Your task to perform on an android device: Search for vegetarian restaurants on Maps Image 0: 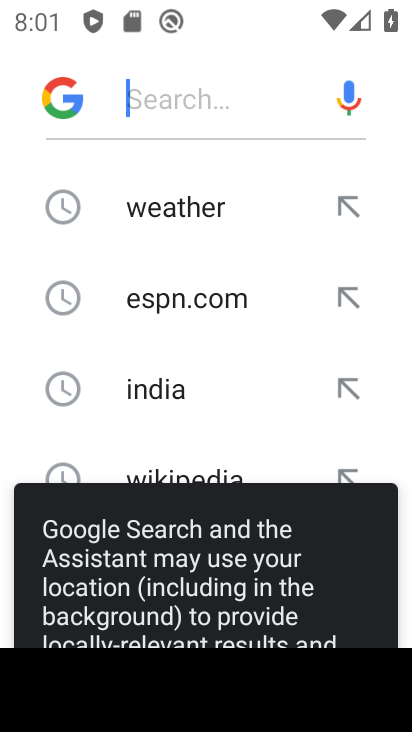
Step 0: press home button
Your task to perform on an android device: Search for vegetarian restaurants on Maps Image 1: 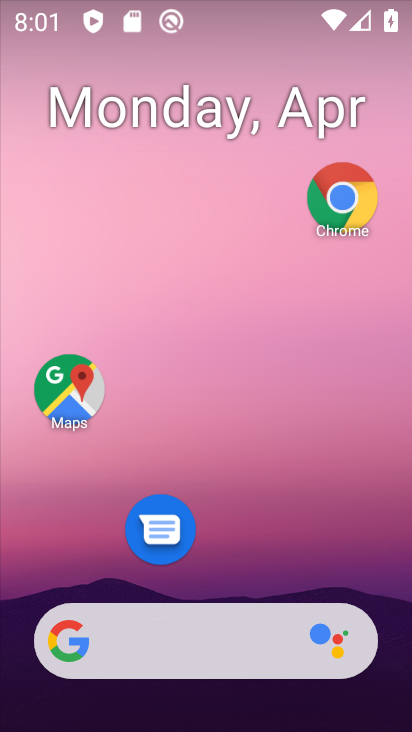
Step 1: click (72, 388)
Your task to perform on an android device: Search for vegetarian restaurants on Maps Image 2: 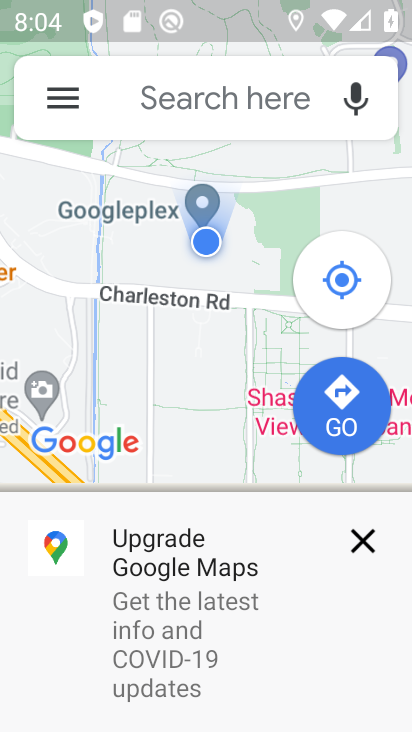
Step 2: click (172, 100)
Your task to perform on an android device: Search for vegetarian restaurants on Maps Image 3: 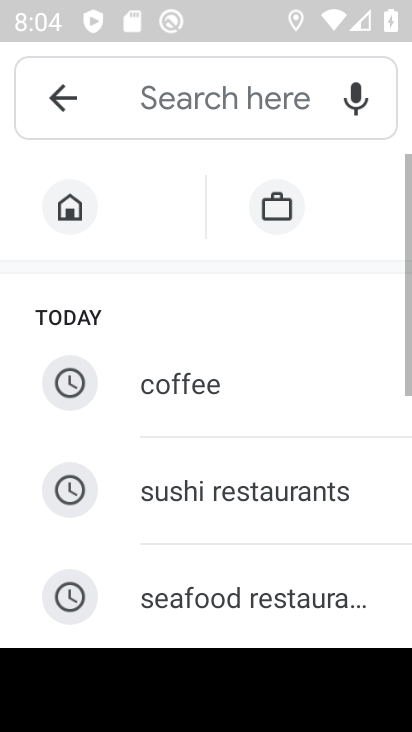
Step 3: drag from (225, 519) to (317, 86)
Your task to perform on an android device: Search for vegetarian restaurants on Maps Image 4: 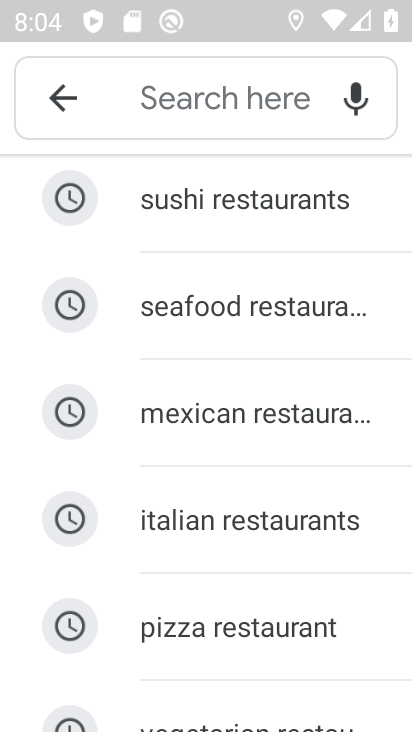
Step 4: drag from (202, 589) to (321, 87)
Your task to perform on an android device: Search for vegetarian restaurants on Maps Image 5: 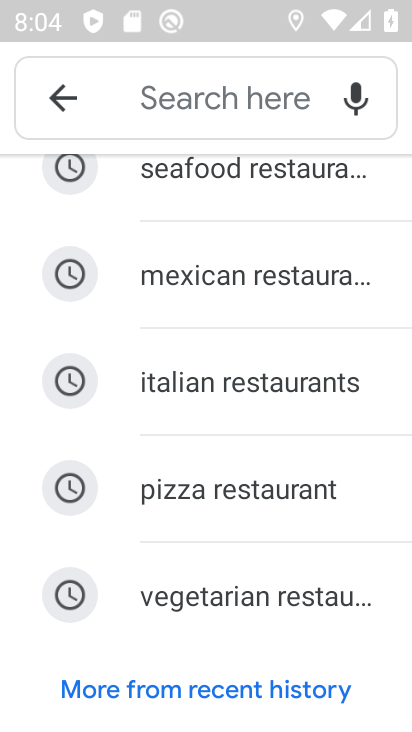
Step 5: click (202, 590)
Your task to perform on an android device: Search for vegetarian restaurants on Maps Image 6: 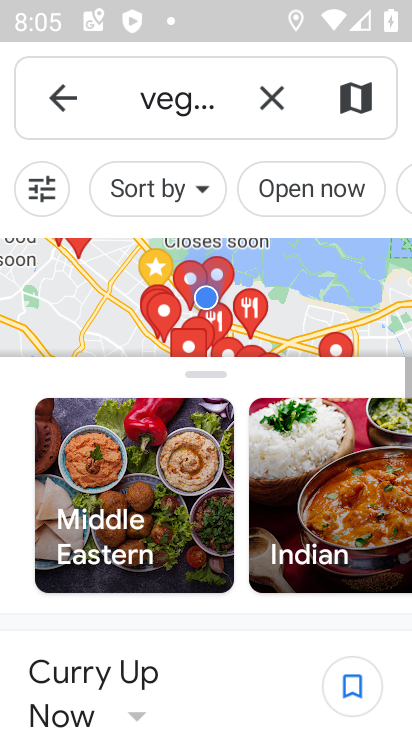
Step 6: task complete